Your task to perform on an android device: Show me productivity apps on the Play Store Image 0: 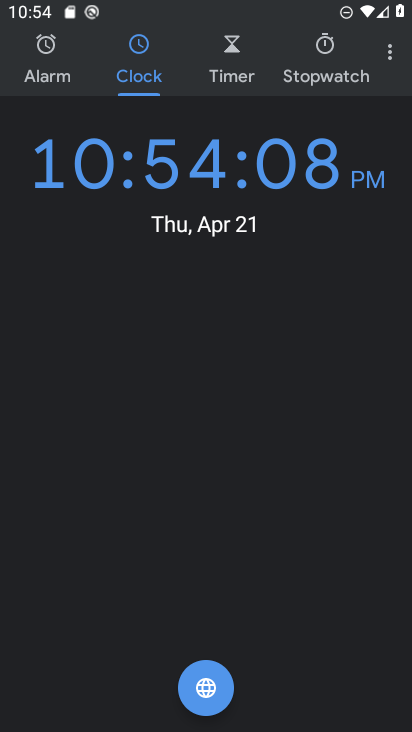
Step 0: press home button
Your task to perform on an android device: Show me productivity apps on the Play Store Image 1: 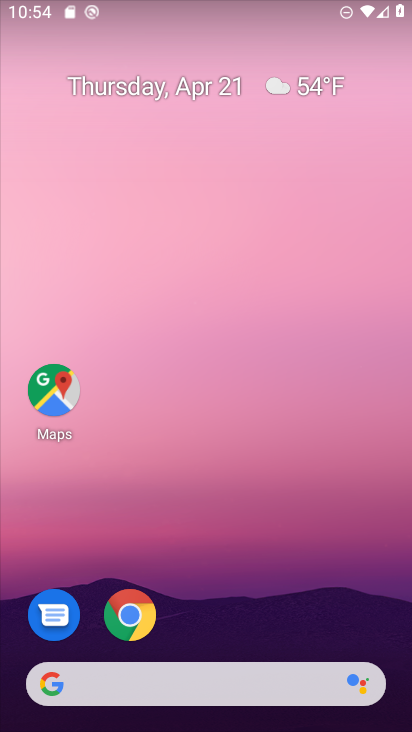
Step 1: drag from (242, 619) to (271, 272)
Your task to perform on an android device: Show me productivity apps on the Play Store Image 2: 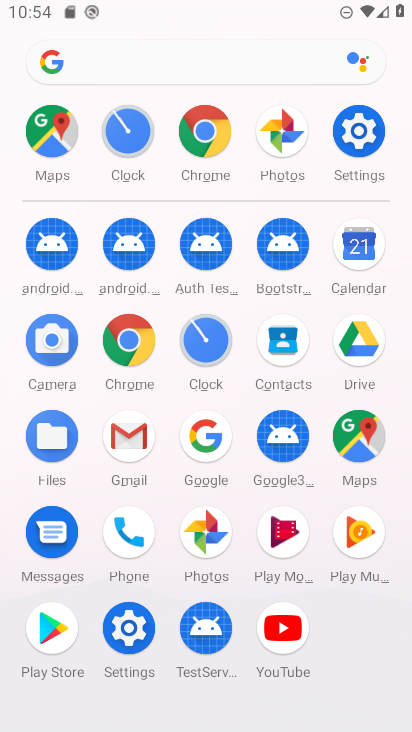
Step 2: click (44, 626)
Your task to perform on an android device: Show me productivity apps on the Play Store Image 3: 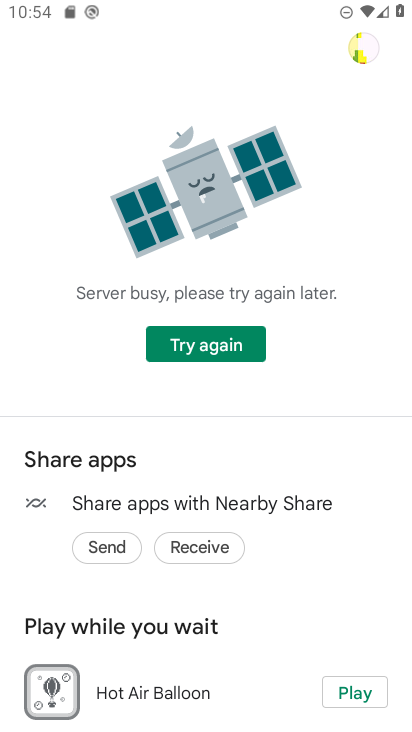
Step 3: click (241, 361)
Your task to perform on an android device: Show me productivity apps on the Play Store Image 4: 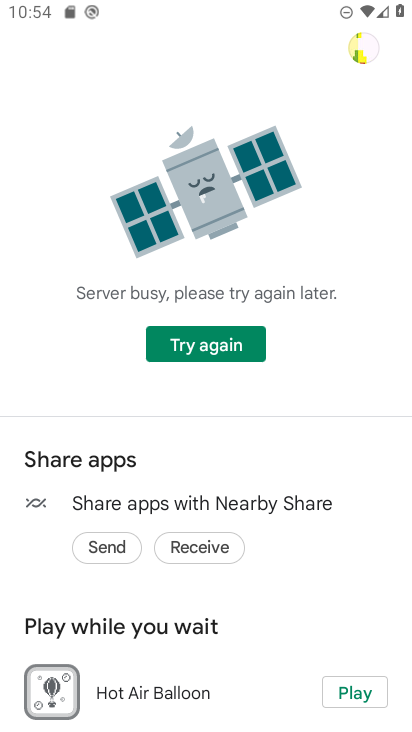
Step 4: click (235, 347)
Your task to perform on an android device: Show me productivity apps on the Play Store Image 5: 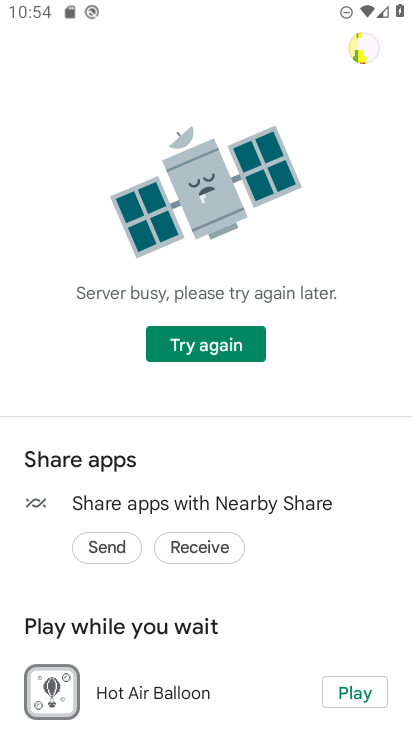
Step 5: press back button
Your task to perform on an android device: Show me productivity apps on the Play Store Image 6: 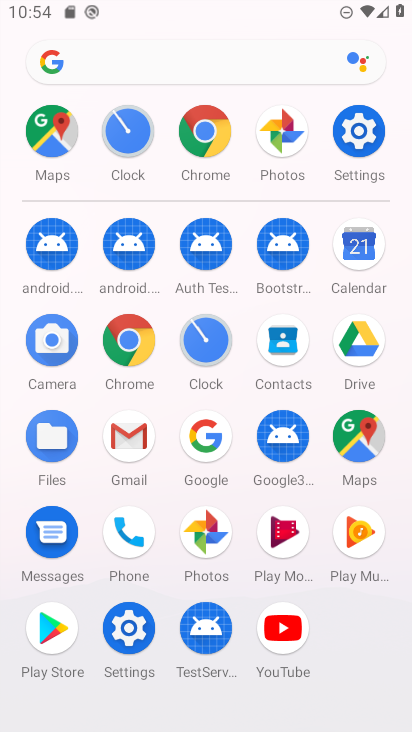
Step 6: click (55, 631)
Your task to perform on an android device: Show me productivity apps on the Play Store Image 7: 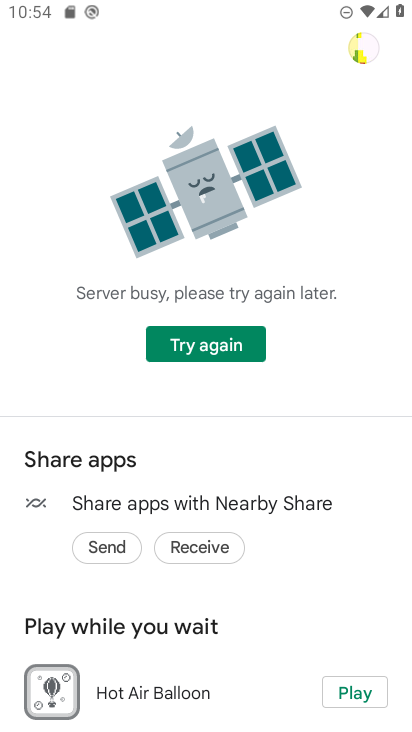
Step 7: click (234, 337)
Your task to perform on an android device: Show me productivity apps on the Play Store Image 8: 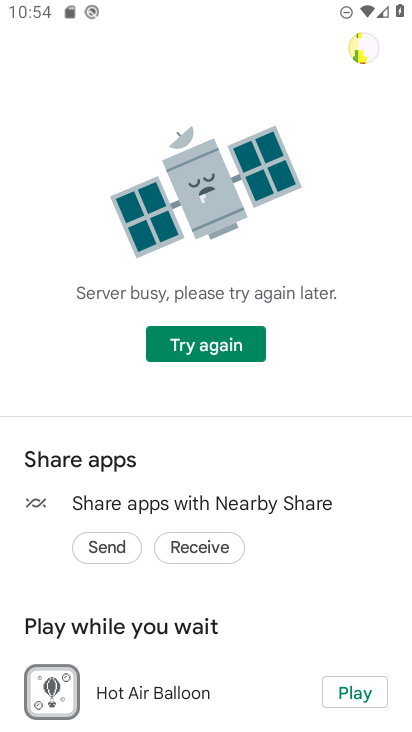
Step 8: click (234, 337)
Your task to perform on an android device: Show me productivity apps on the Play Store Image 9: 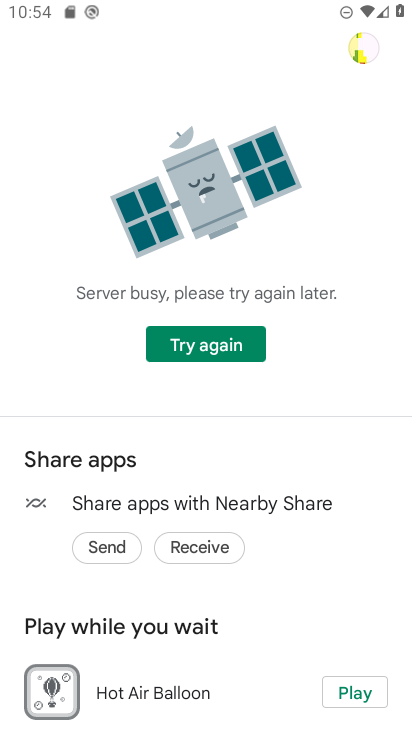
Step 9: click (234, 337)
Your task to perform on an android device: Show me productivity apps on the Play Store Image 10: 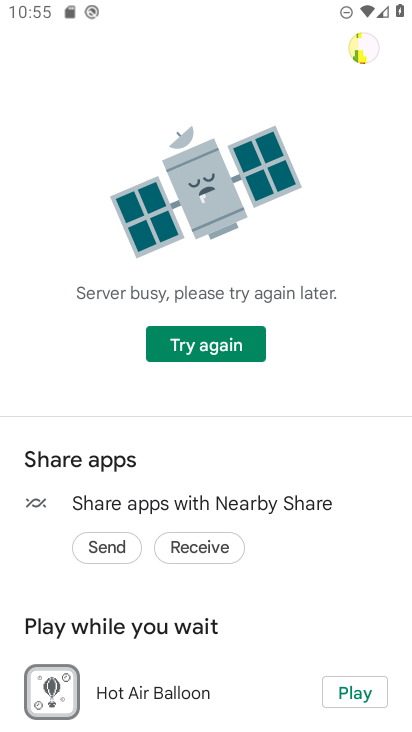
Step 10: click (234, 337)
Your task to perform on an android device: Show me productivity apps on the Play Store Image 11: 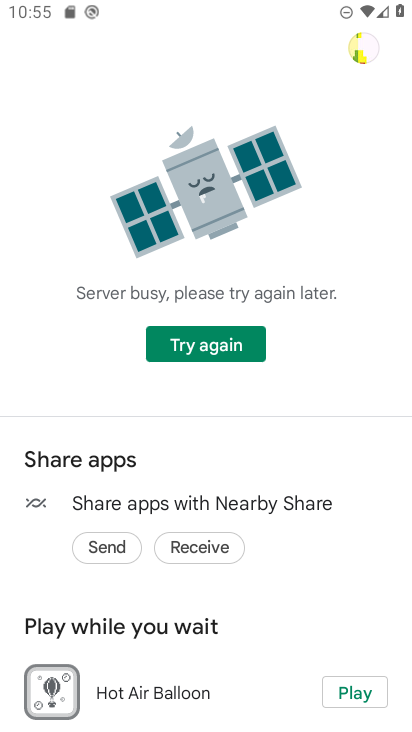
Step 11: click (234, 337)
Your task to perform on an android device: Show me productivity apps on the Play Store Image 12: 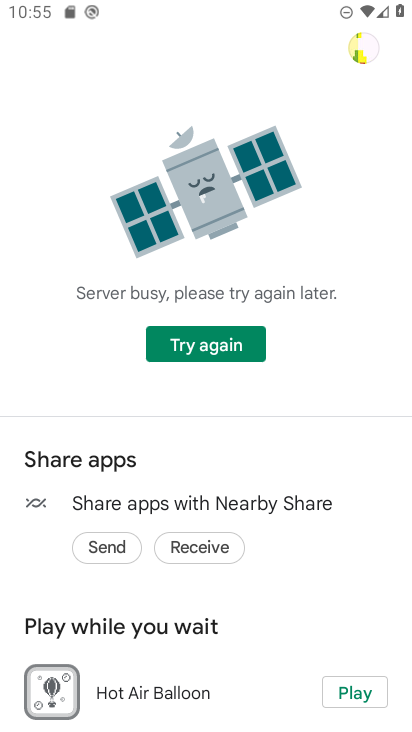
Step 12: click (234, 337)
Your task to perform on an android device: Show me productivity apps on the Play Store Image 13: 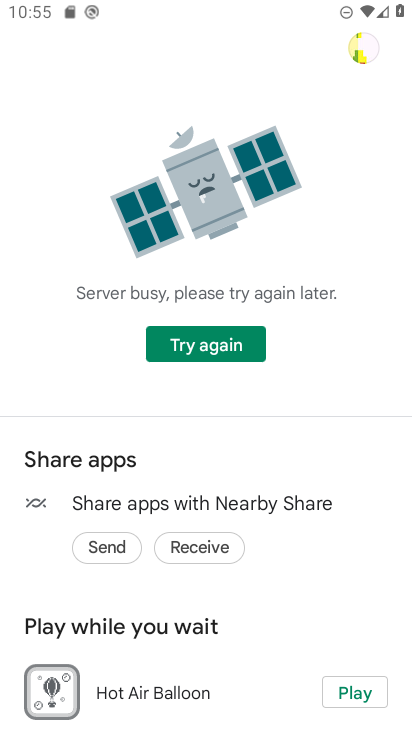
Step 13: task complete